Your task to perform on an android device: empty trash in google photos Image 0: 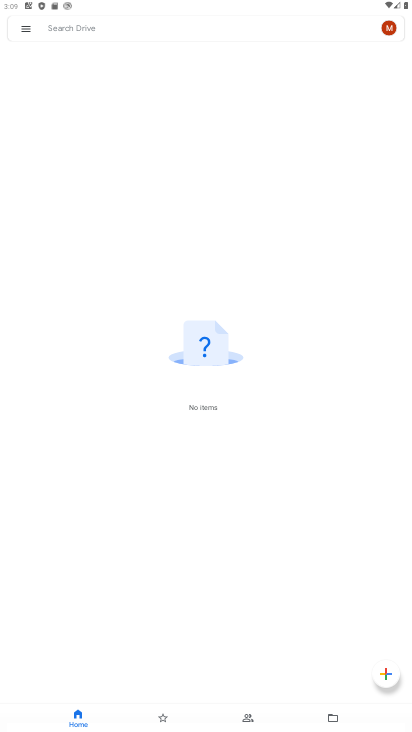
Step 0: press home button
Your task to perform on an android device: empty trash in google photos Image 1: 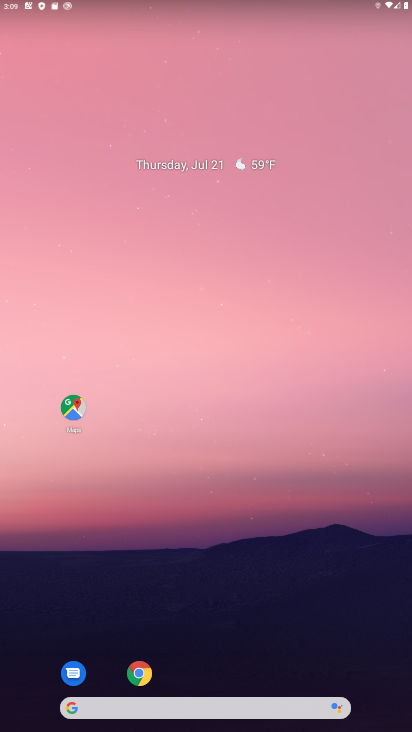
Step 1: drag from (224, 643) to (153, 73)
Your task to perform on an android device: empty trash in google photos Image 2: 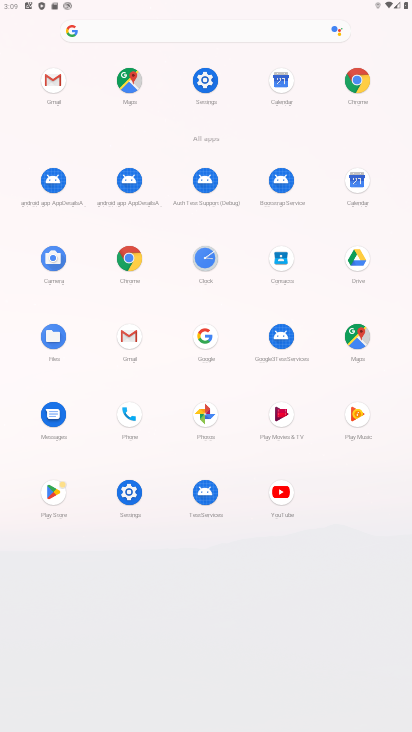
Step 2: click (208, 425)
Your task to perform on an android device: empty trash in google photos Image 3: 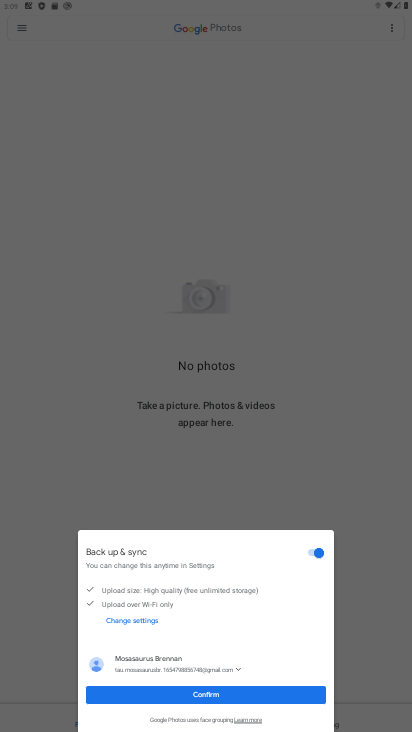
Step 3: click (236, 697)
Your task to perform on an android device: empty trash in google photos Image 4: 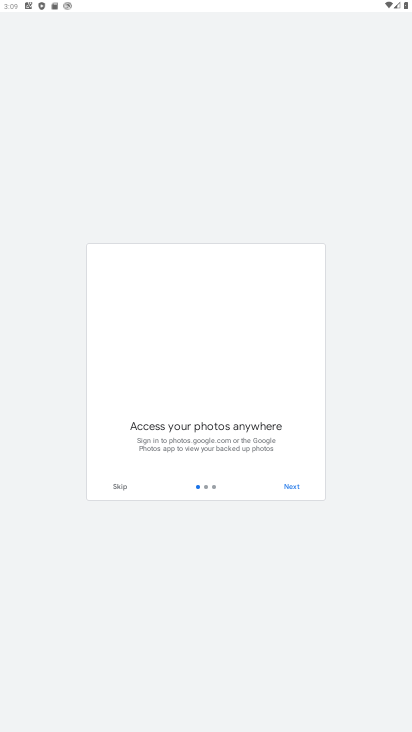
Step 4: click (294, 489)
Your task to perform on an android device: empty trash in google photos Image 5: 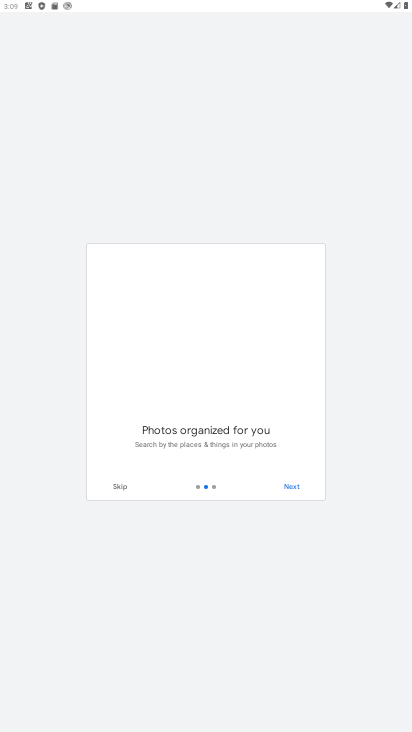
Step 5: click (294, 489)
Your task to perform on an android device: empty trash in google photos Image 6: 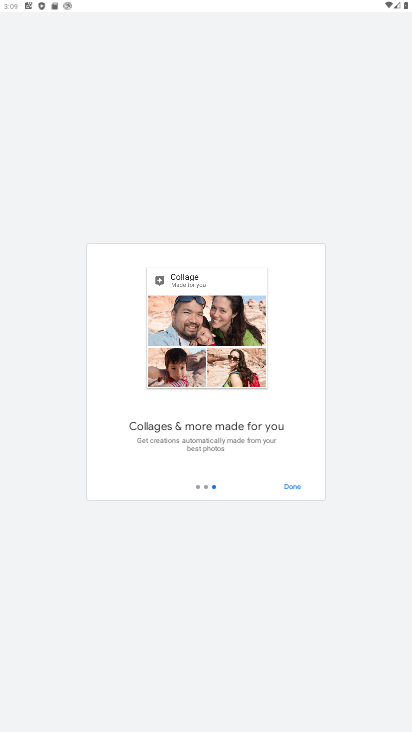
Step 6: click (294, 489)
Your task to perform on an android device: empty trash in google photos Image 7: 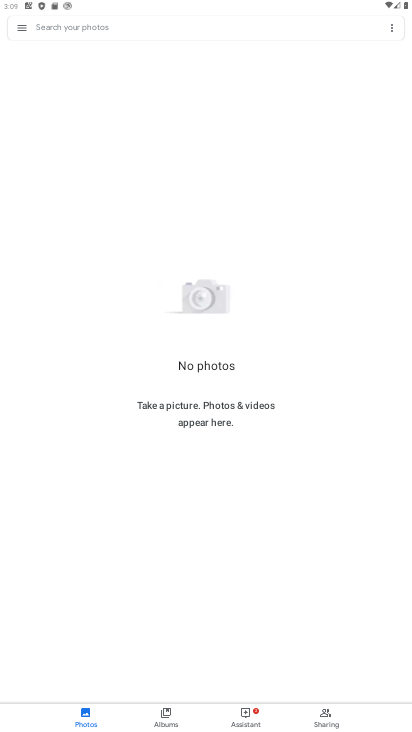
Step 7: click (19, 21)
Your task to perform on an android device: empty trash in google photos Image 8: 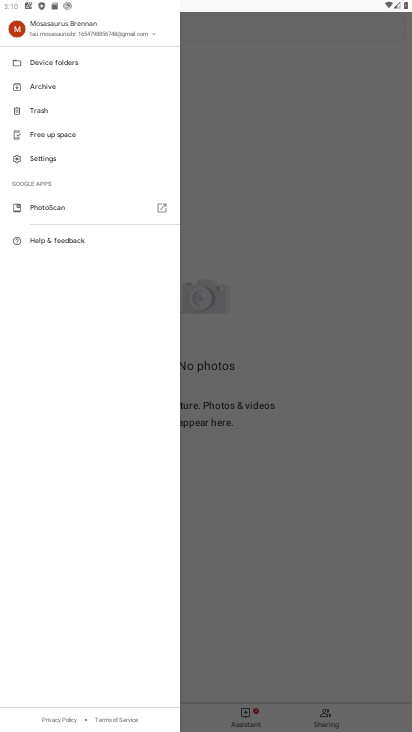
Step 8: click (50, 111)
Your task to perform on an android device: empty trash in google photos Image 9: 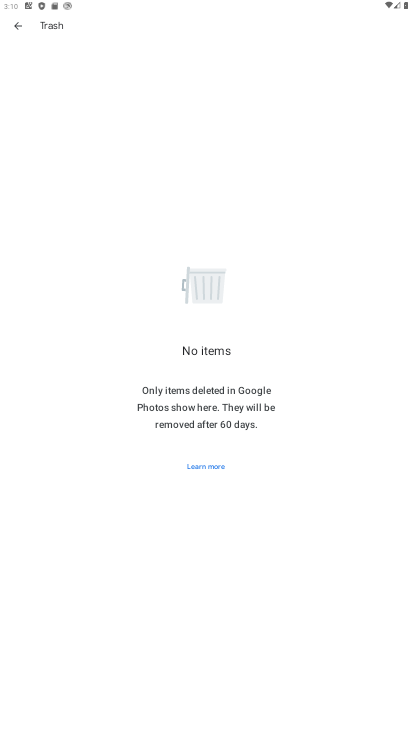
Step 9: task complete